Your task to perform on an android device: change the clock style Image 0: 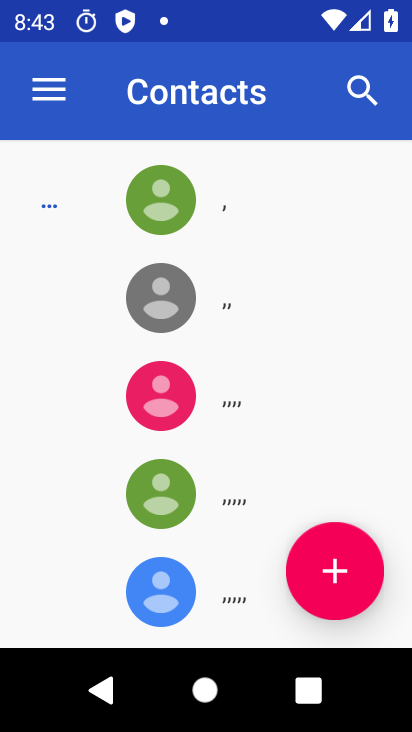
Step 0: press home button
Your task to perform on an android device: change the clock style Image 1: 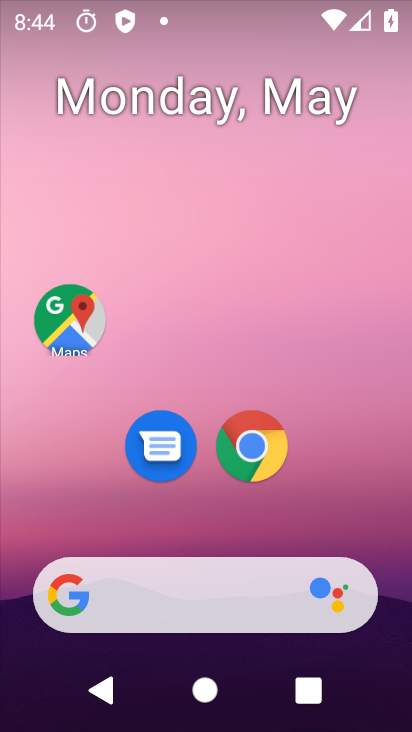
Step 1: drag from (366, 550) to (328, 10)
Your task to perform on an android device: change the clock style Image 2: 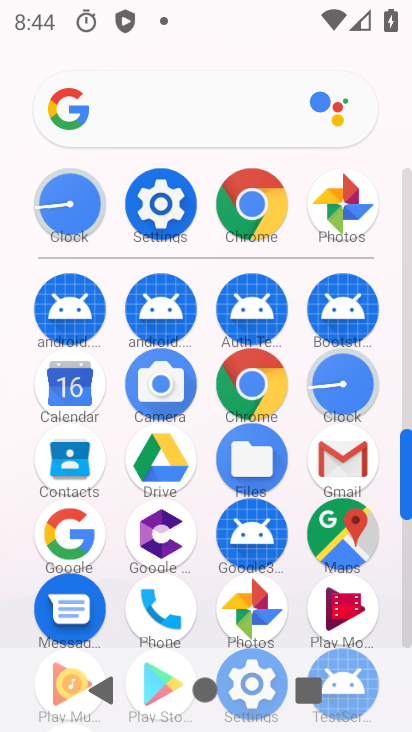
Step 2: click (51, 206)
Your task to perform on an android device: change the clock style Image 3: 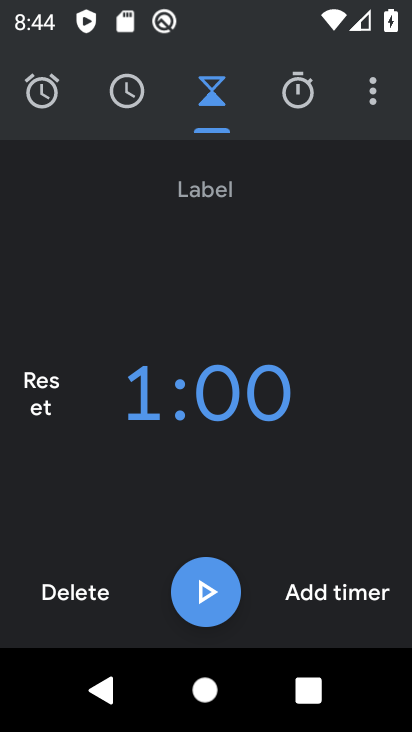
Step 3: click (378, 100)
Your task to perform on an android device: change the clock style Image 4: 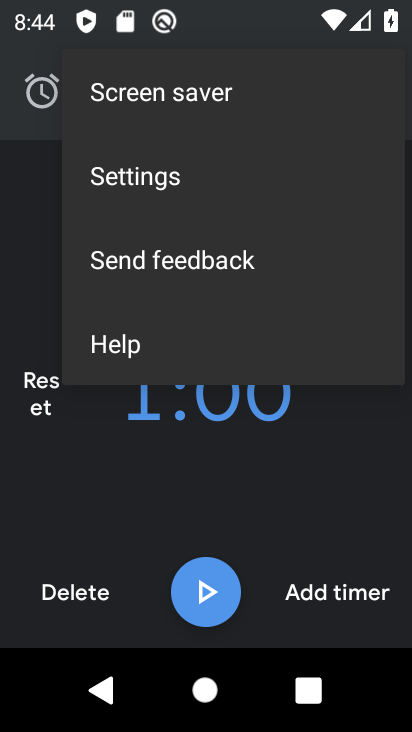
Step 4: click (94, 185)
Your task to perform on an android device: change the clock style Image 5: 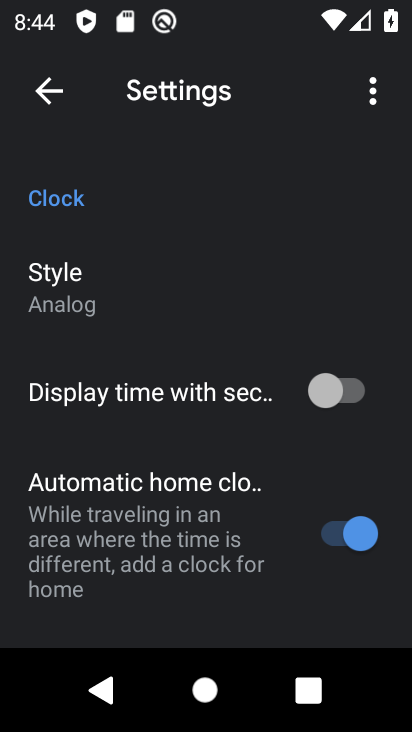
Step 5: click (59, 308)
Your task to perform on an android device: change the clock style Image 6: 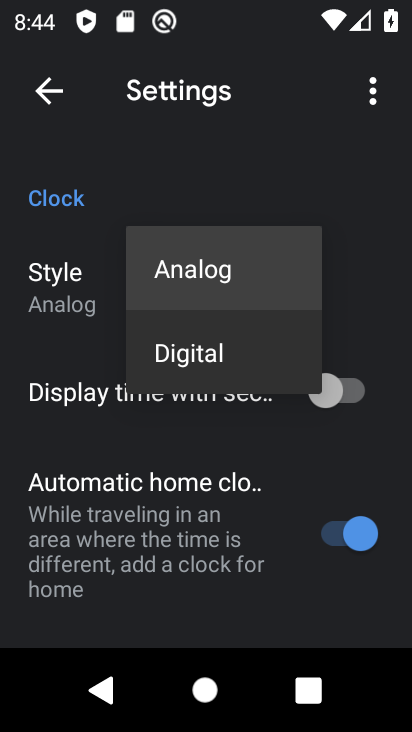
Step 6: click (198, 365)
Your task to perform on an android device: change the clock style Image 7: 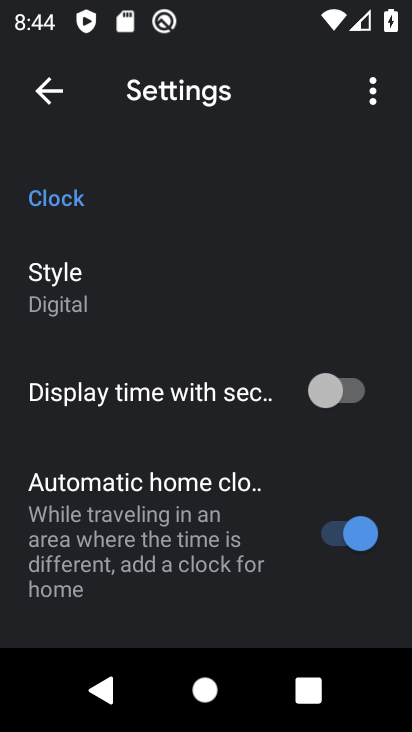
Step 7: task complete